Your task to perform on an android device: Search for the best way to get rid of a cold Image 0: 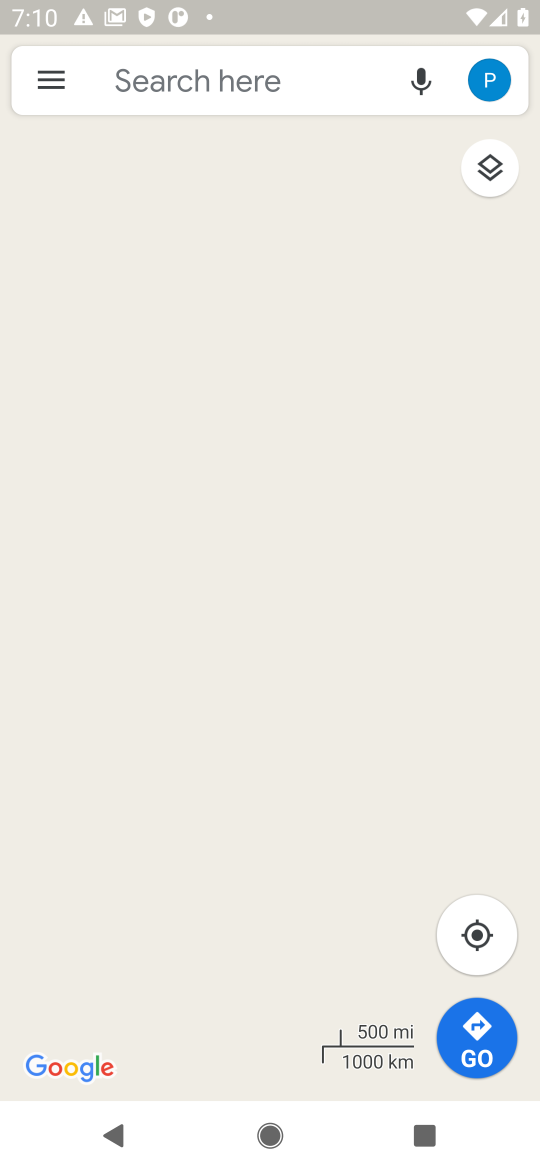
Step 0: press home button
Your task to perform on an android device: Search for the best way to get rid of a cold Image 1: 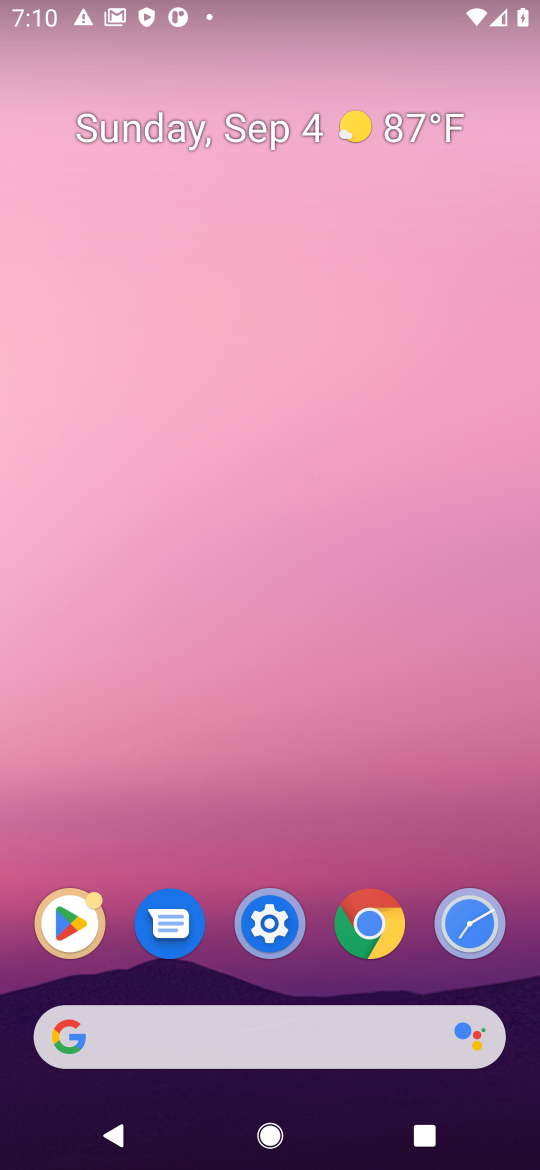
Step 1: click (357, 1029)
Your task to perform on an android device: Search for the best way to get rid of a cold Image 2: 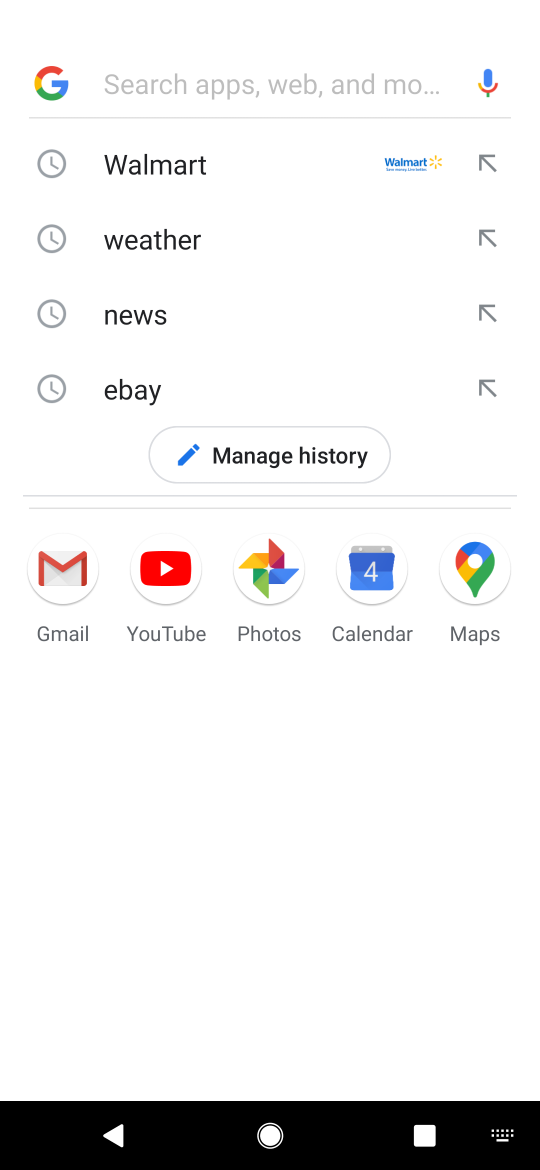
Step 2: press enter
Your task to perform on an android device: Search for the best way to get rid of a cold Image 3: 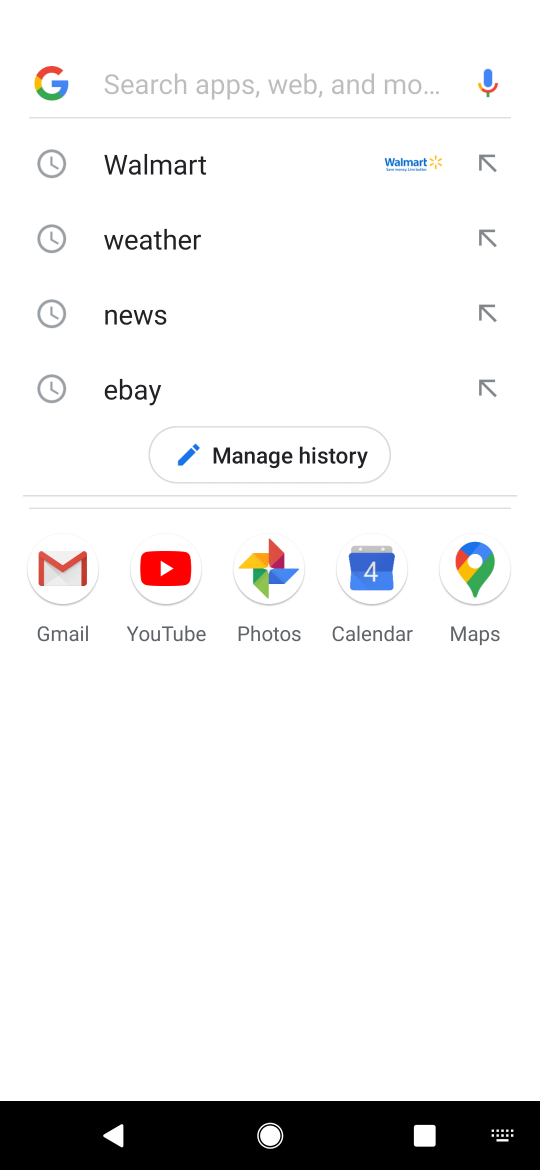
Step 3: type "best way to get rid of a cold"
Your task to perform on an android device: Search for the best way to get rid of a cold Image 4: 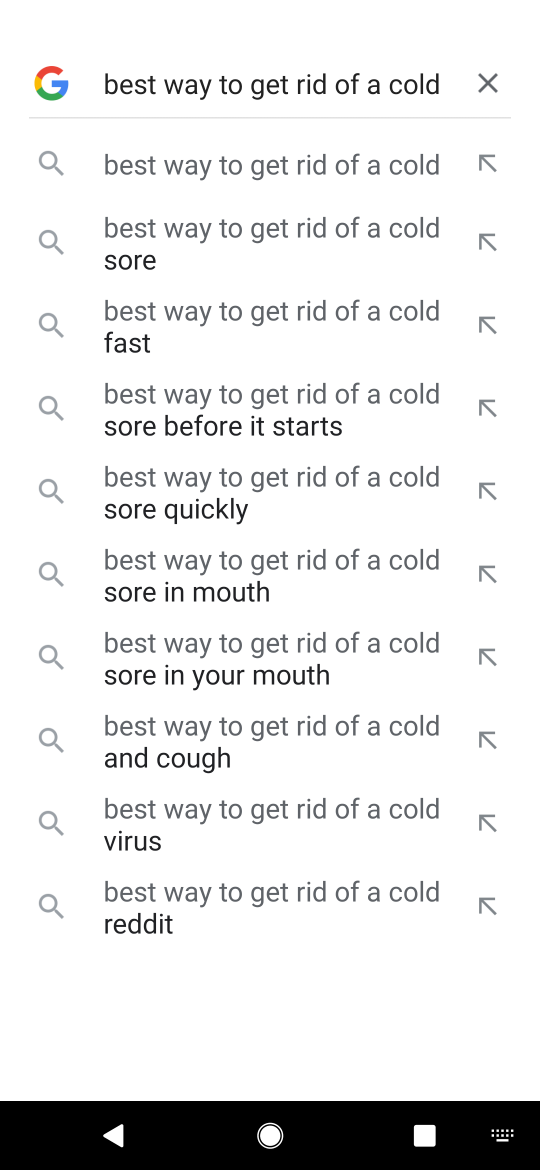
Step 4: click (316, 161)
Your task to perform on an android device: Search for the best way to get rid of a cold Image 5: 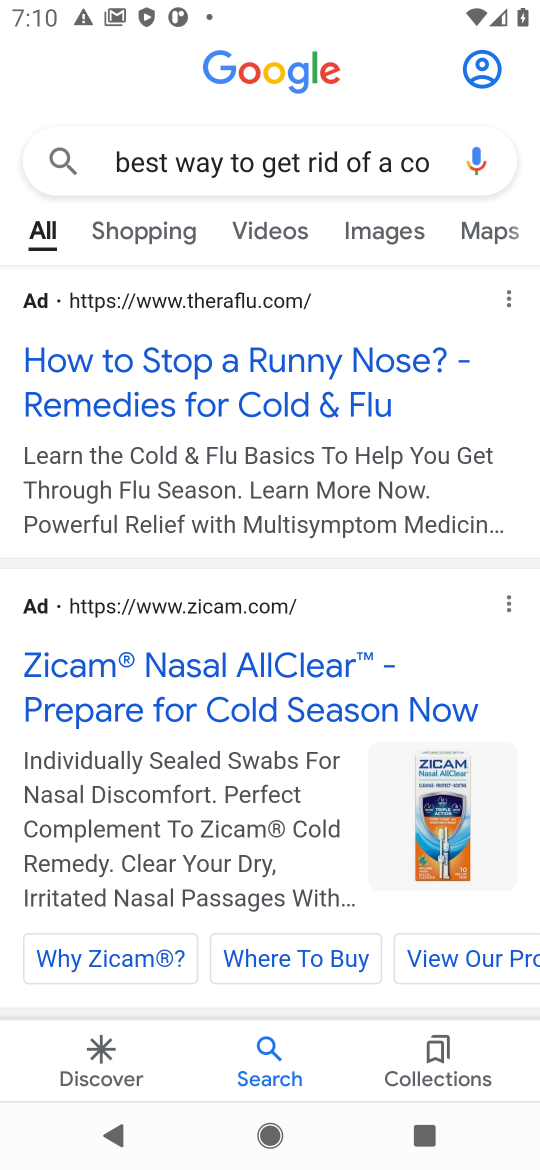
Step 5: task complete